Your task to perform on an android device: empty trash in google photos Image 0: 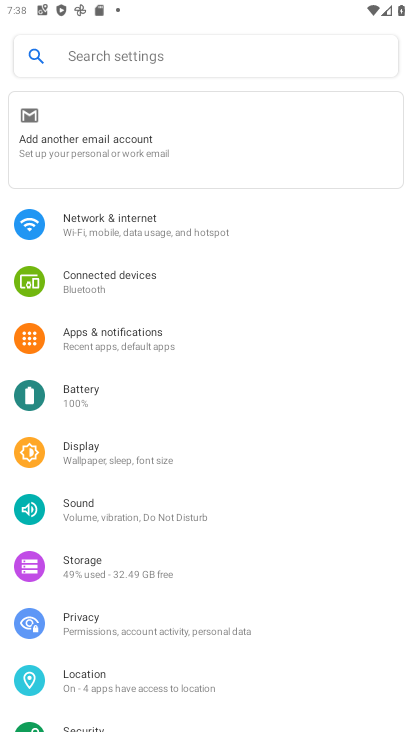
Step 0: press home button
Your task to perform on an android device: empty trash in google photos Image 1: 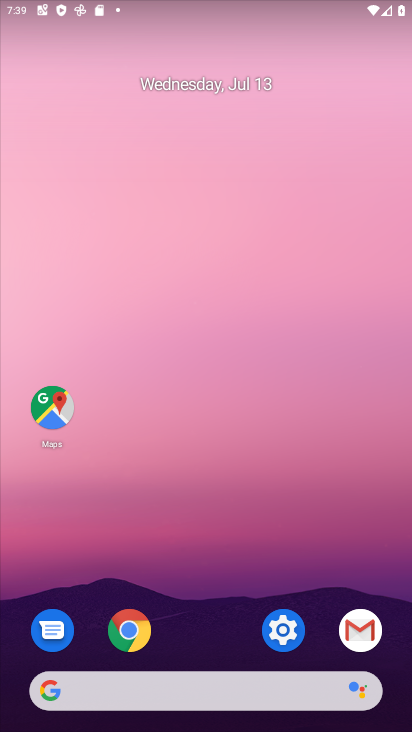
Step 1: click (300, 625)
Your task to perform on an android device: empty trash in google photos Image 2: 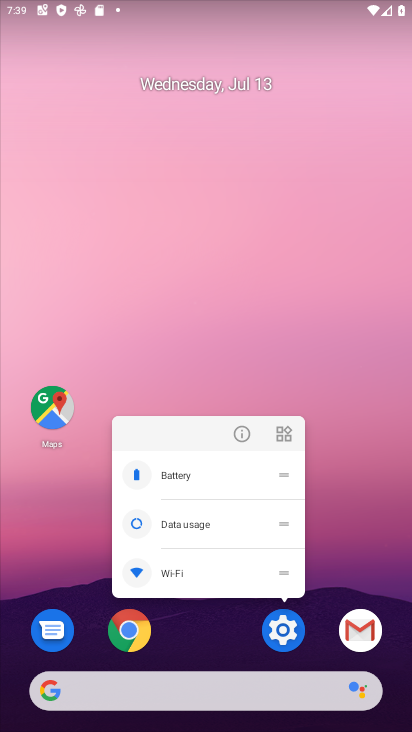
Step 2: click (313, 314)
Your task to perform on an android device: empty trash in google photos Image 3: 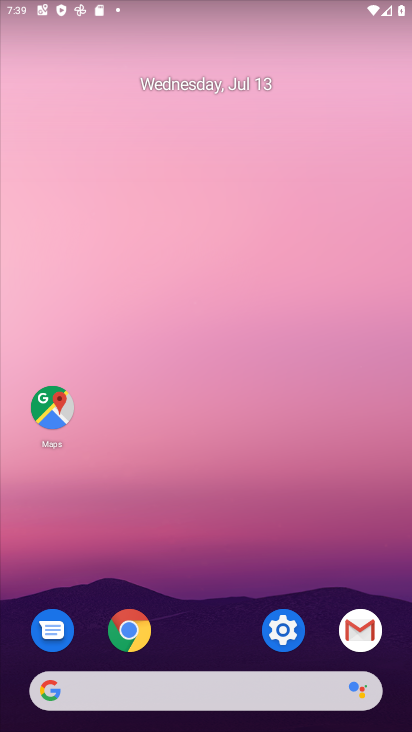
Step 3: drag from (239, 709) to (230, 162)
Your task to perform on an android device: empty trash in google photos Image 4: 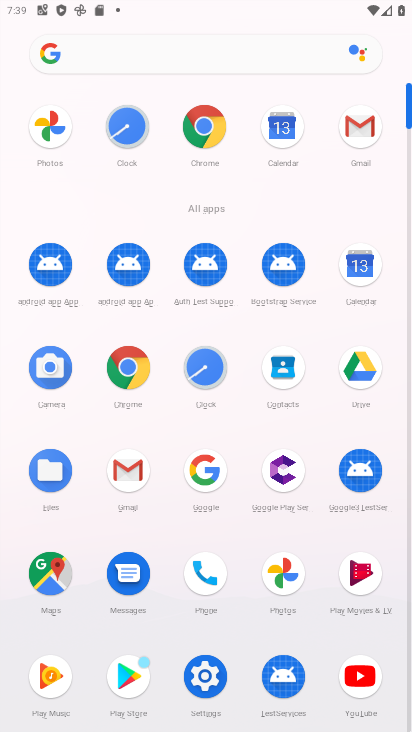
Step 4: click (290, 579)
Your task to perform on an android device: empty trash in google photos Image 5: 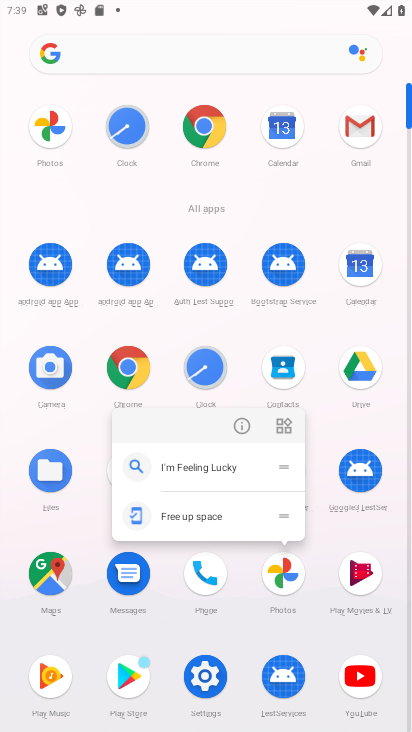
Step 5: click (289, 572)
Your task to perform on an android device: empty trash in google photos Image 6: 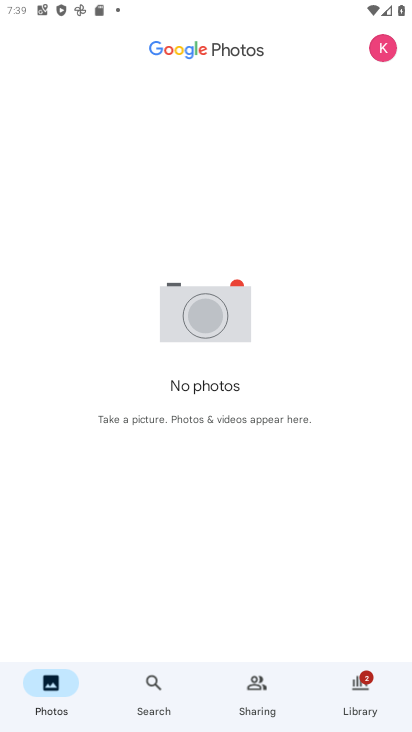
Step 6: click (160, 700)
Your task to perform on an android device: empty trash in google photos Image 7: 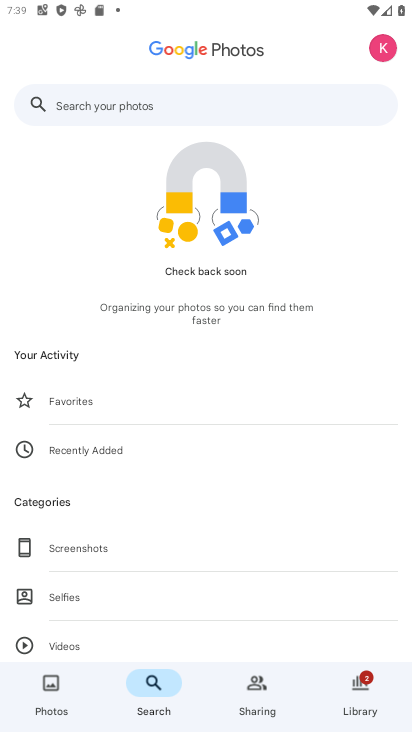
Step 7: click (67, 104)
Your task to perform on an android device: empty trash in google photos Image 8: 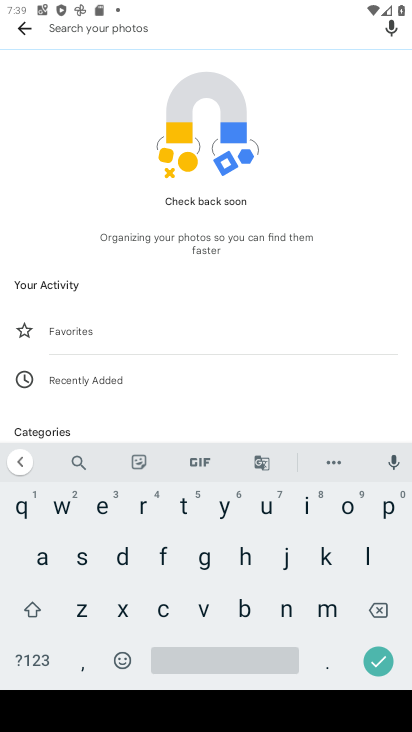
Step 8: click (182, 506)
Your task to perform on an android device: empty trash in google photos Image 9: 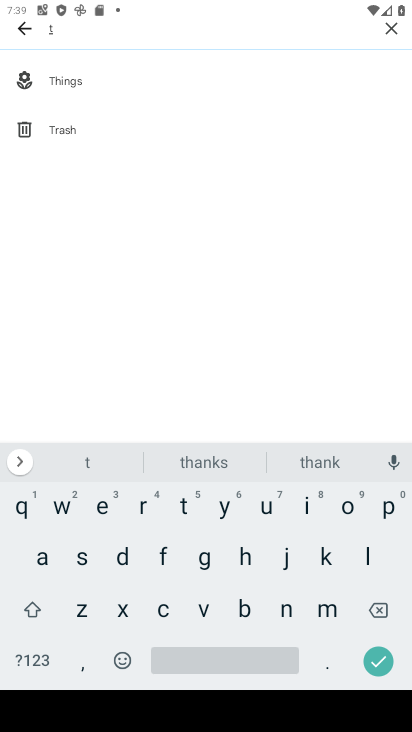
Step 9: click (139, 507)
Your task to perform on an android device: empty trash in google photos Image 10: 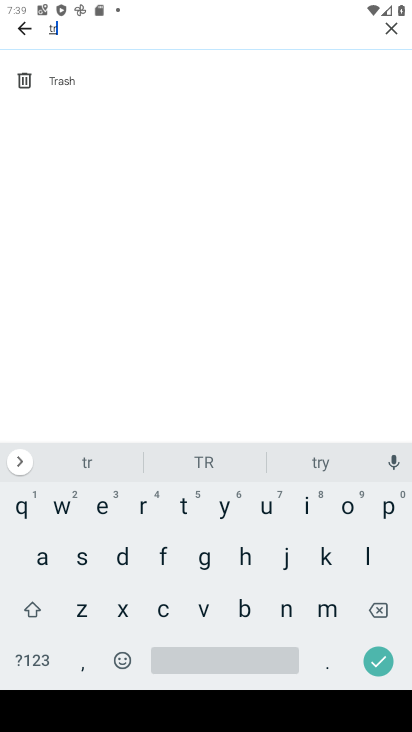
Step 10: click (66, 89)
Your task to perform on an android device: empty trash in google photos Image 11: 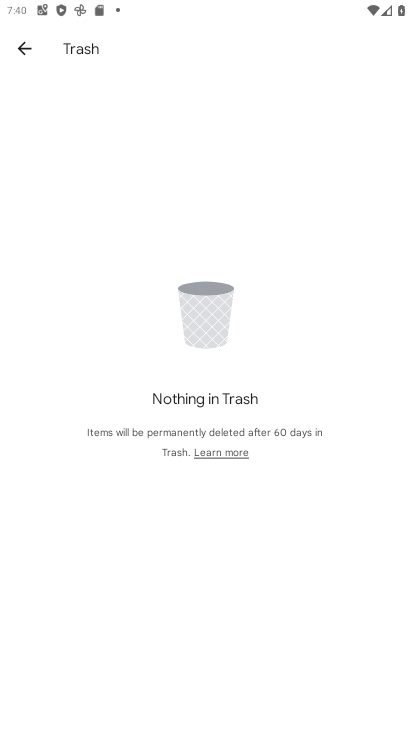
Step 11: task complete